Your task to perform on an android device: create a new album in the google photos Image 0: 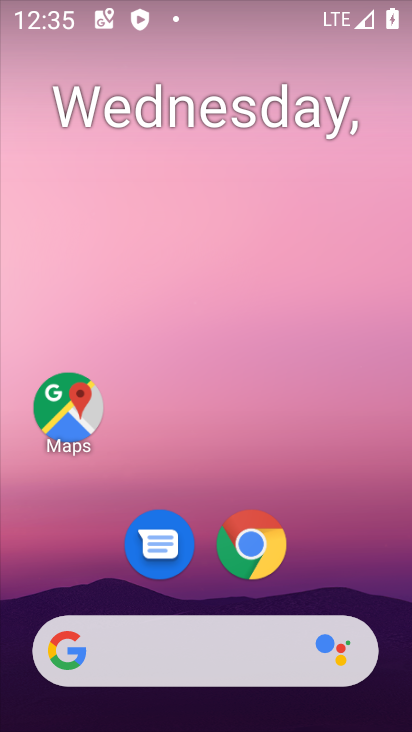
Step 0: drag from (390, 640) to (9, 54)
Your task to perform on an android device: create a new album in the google photos Image 1: 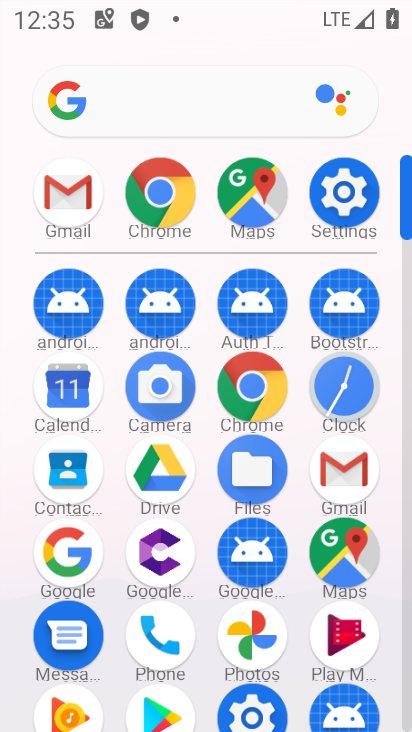
Step 1: click (263, 637)
Your task to perform on an android device: create a new album in the google photos Image 2: 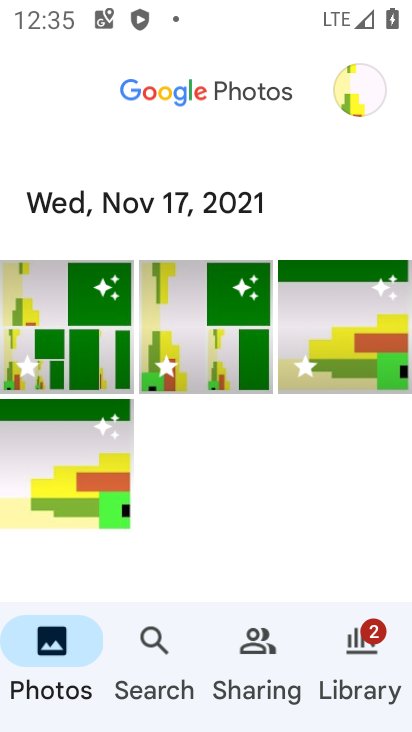
Step 2: click (59, 352)
Your task to perform on an android device: create a new album in the google photos Image 3: 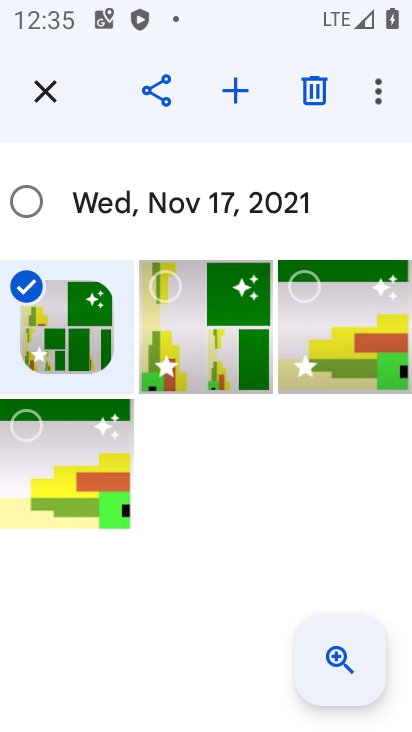
Step 3: click (242, 83)
Your task to perform on an android device: create a new album in the google photos Image 4: 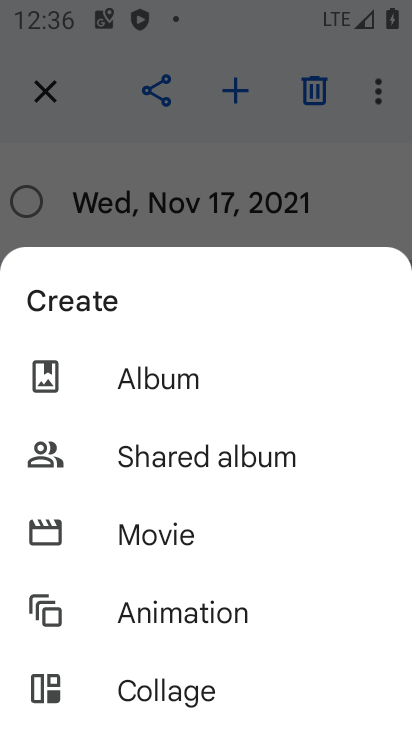
Step 4: click (182, 365)
Your task to perform on an android device: create a new album in the google photos Image 5: 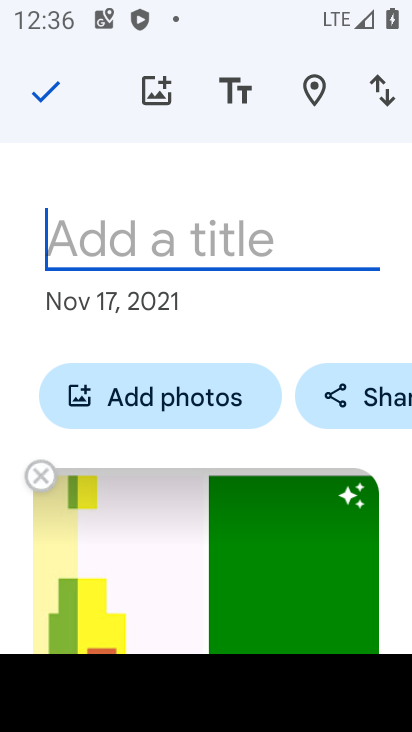
Step 5: click (203, 241)
Your task to perform on an android device: create a new album in the google photos Image 6: 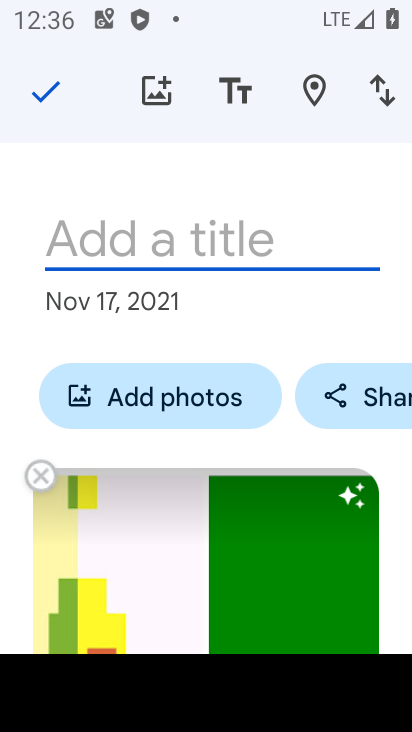
Step 6: type "LM"
Your task to perform on an android device: create a new album in the google photos Image 7: 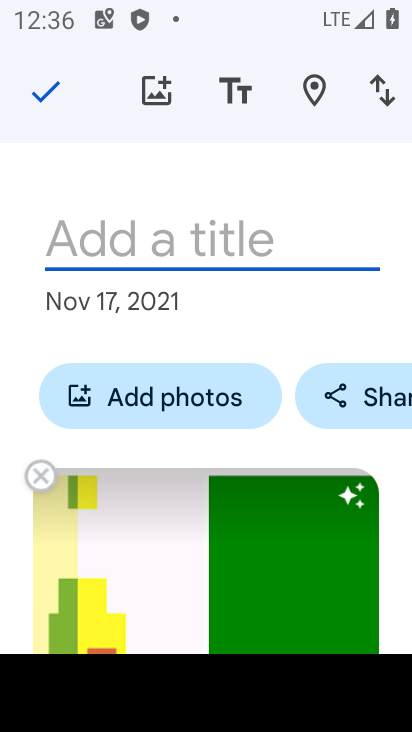
Step 7: click (27, 91)
Your task to perform on an android device: create a new album in the google photos Image 8: 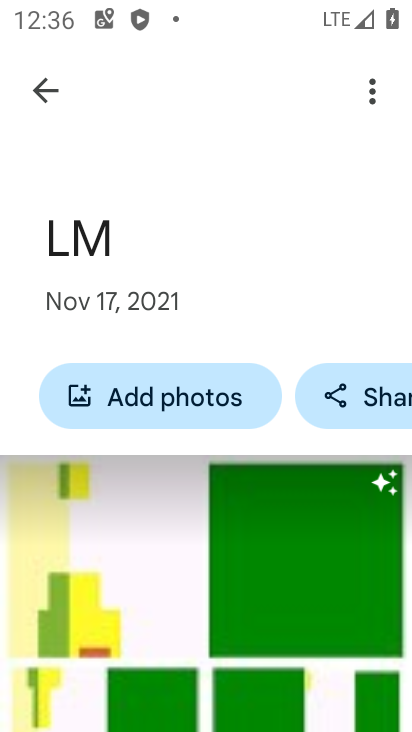
Step 8: task complete